Your task to perform on an android device: Open sound settings Image 0: 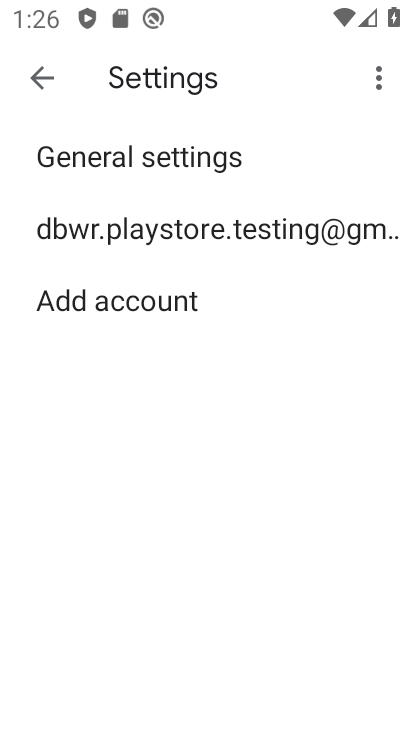
Step 0: press back button
Your task to perform on an android device: Open sound settings Image 1: 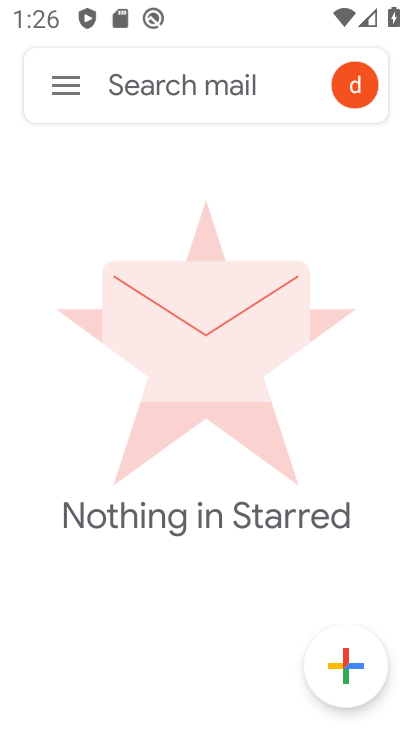
Step 1: press back button
Your task to perform on an android device: Open sound settings Image 2: 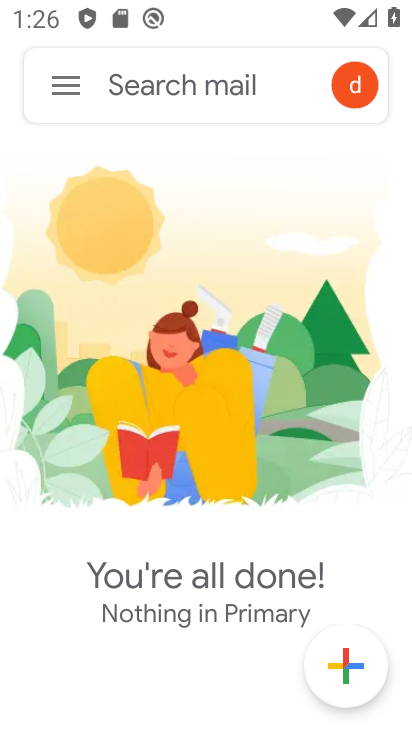
Step 2: press back button
Your task to perform on an android device: Open sound settings Image 3: 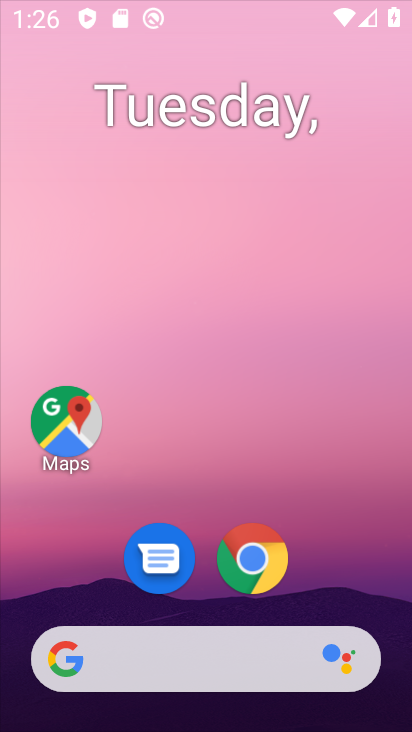
Step 3: drag from (144, 600) to (337, 0)
Your task to perform on an android device: Open sound settings Image 4: 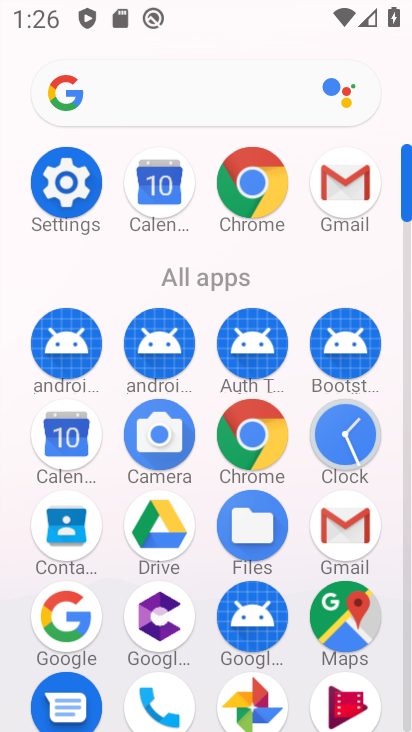
Step 4: click (70, 179)
Your task to perform on an android device: Open sound settings Image 5: 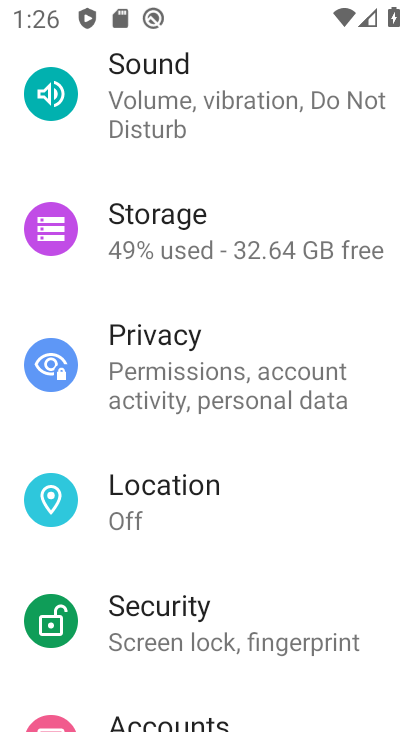
Step 5: click (199, 109)
Your task to perform on an android device: Open sound settings Image 6: 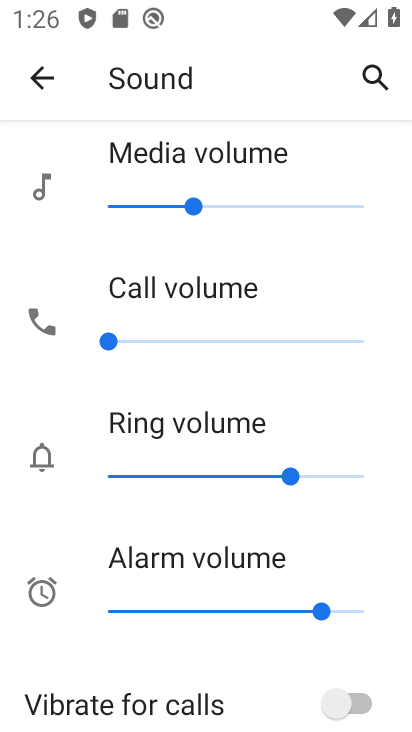
Step 6: task complete